Your task to perform on an android device: Check the weather Image 0: 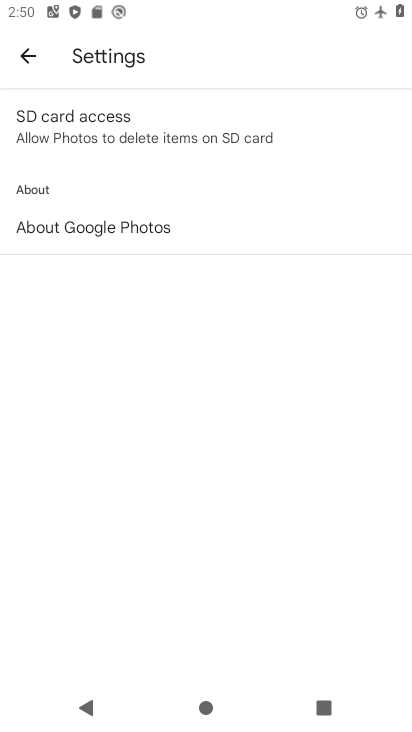
Step 0: press home button
Your task to perform on an android device: Check the weather Image 1: 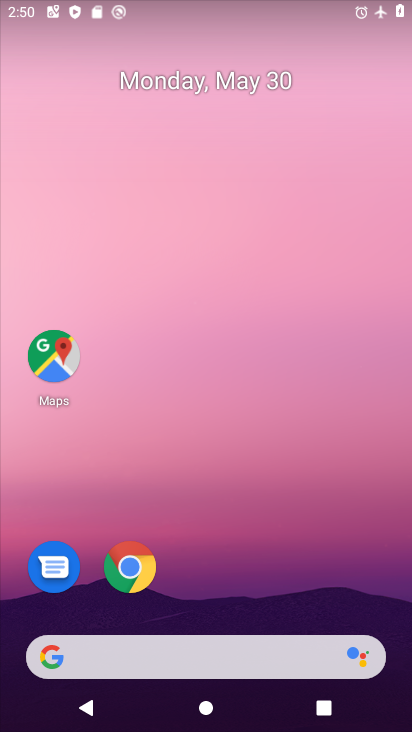
Step 1: click (176, 657)
Your task to perform on an android device: Check the weather Image 2: 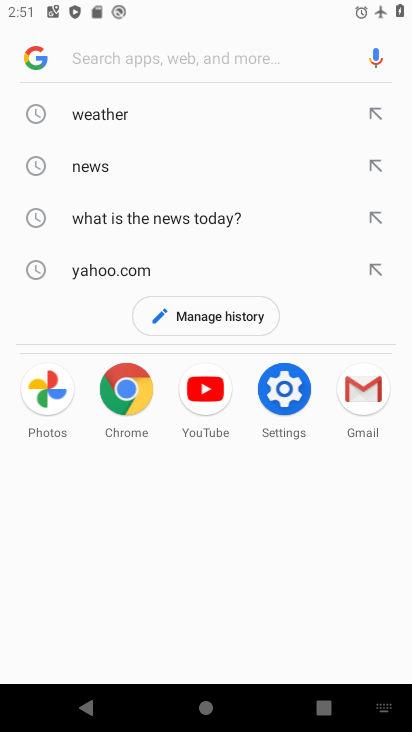
Step 2: click (111, 110)
Your task to perform on an android device: Check the weather Image 3: 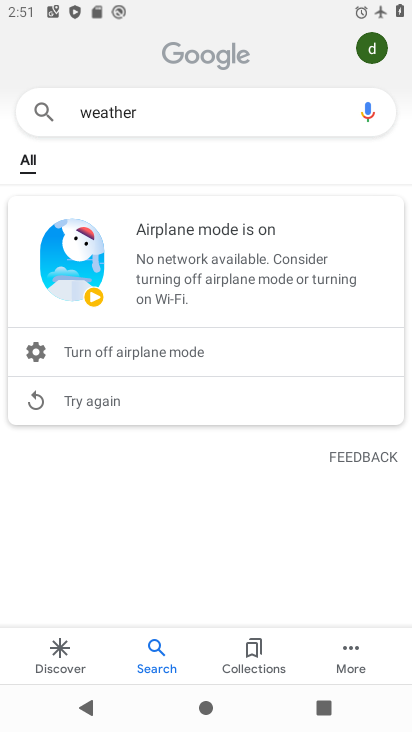
Step 3: task complete